Your task to perform on an android device: change the clock display to digital Image 0: 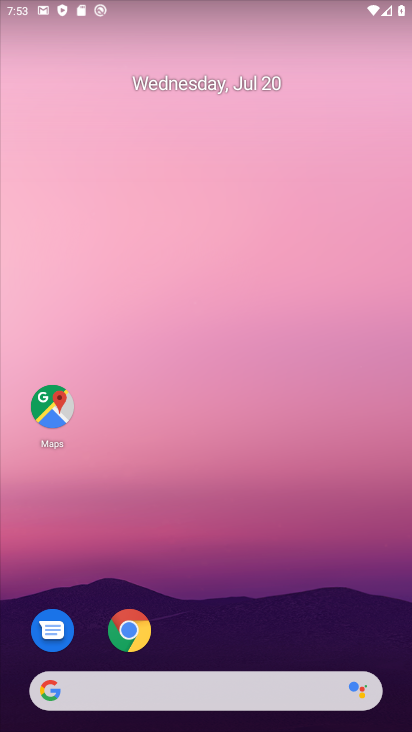
Step 0: drag from (210, 249) to (213, 153)
Your task to perform on an android device: change the clock display to digital Image 1: 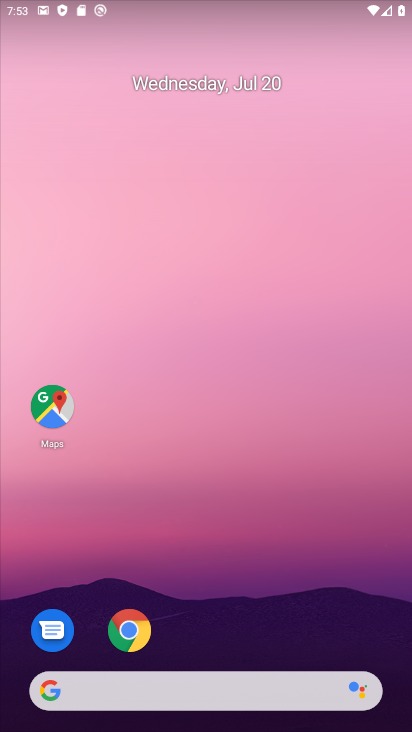
Step 1: drag from (255, 676) to (268, 155)
Your task to perform on an android device: change the clock display to digital Image 2: 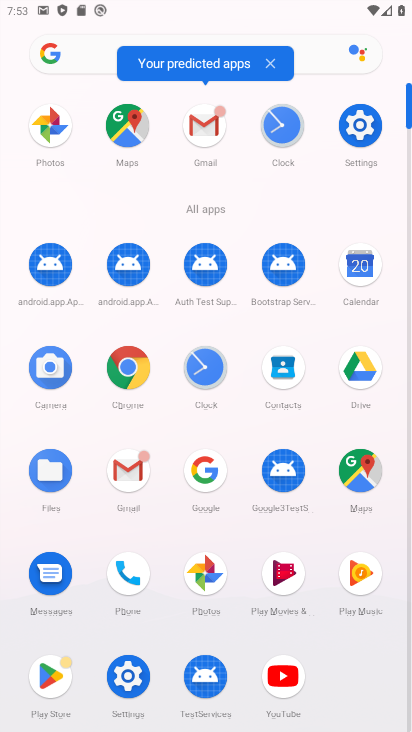
Step 2: click (206, 377)
Your task to perform on an android device: change the clock display to digital Image 3: 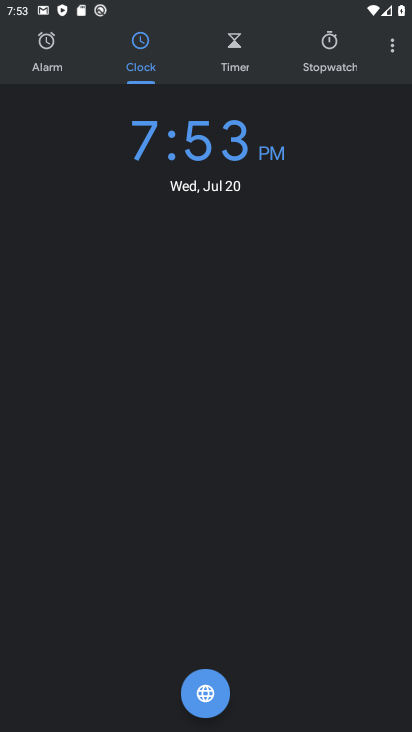
Step 3: click (392, 51)
Your task to perform on an android device: change the clock display to digital Image 4: 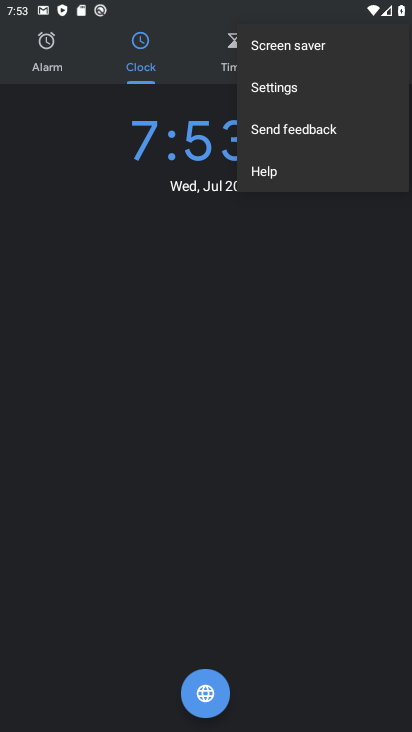
Step 4: click (337, 83)
Your task to perform on an android device: change the clock display to digital Image 5: 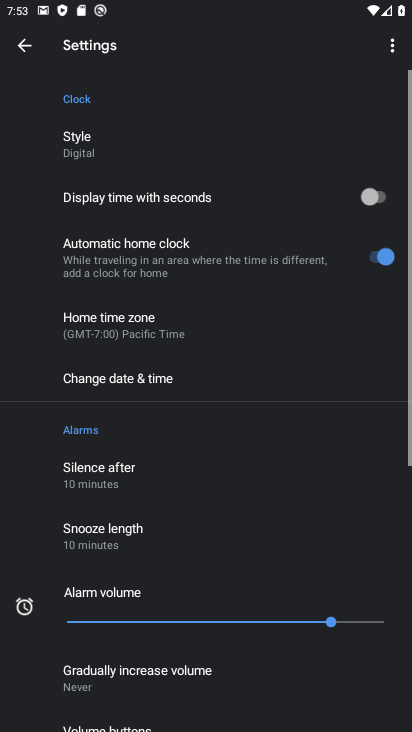
Step 5: click (146, 144)
Your task to perform on an android device: change the clock display to digital Image 6: 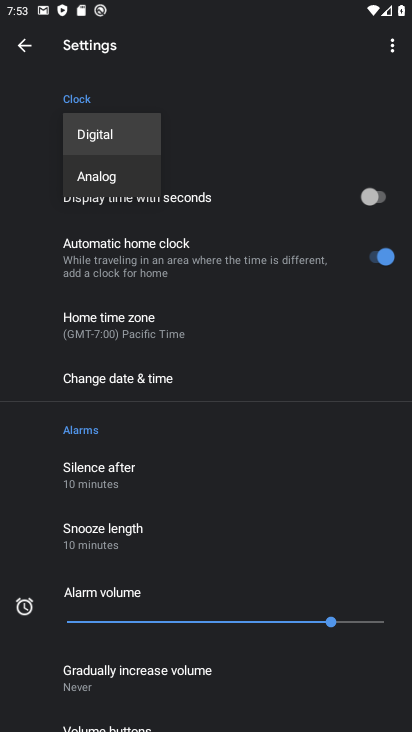
Step 6: task complete